Your task to perform on an android device: Look up the top rated 18v miter saw on Home Depot. Image 0: 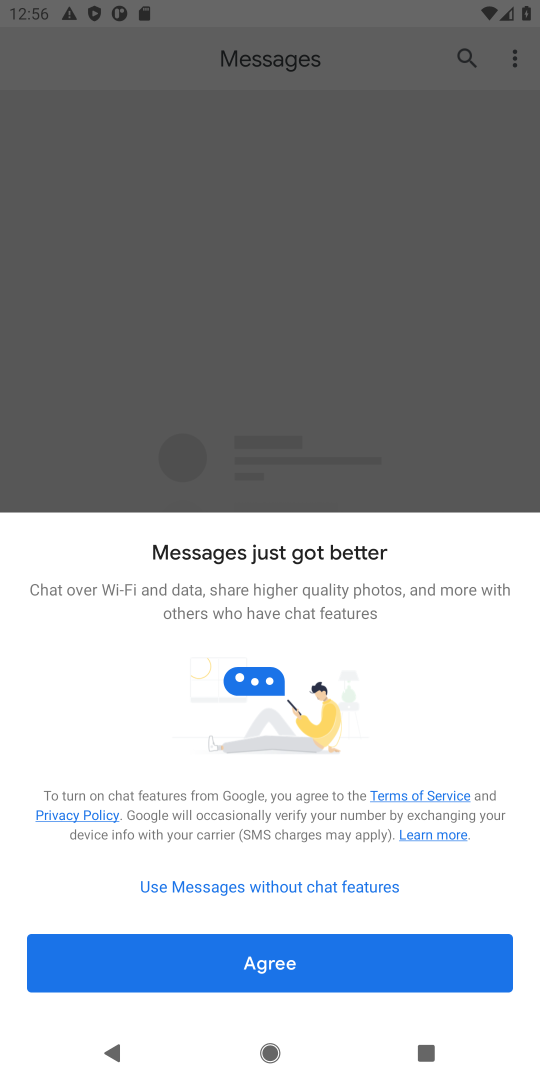
Step 0: press home button
Your task to perform on an android device: Look up the top rated 18v miter saw on Home Depot. Image 1: 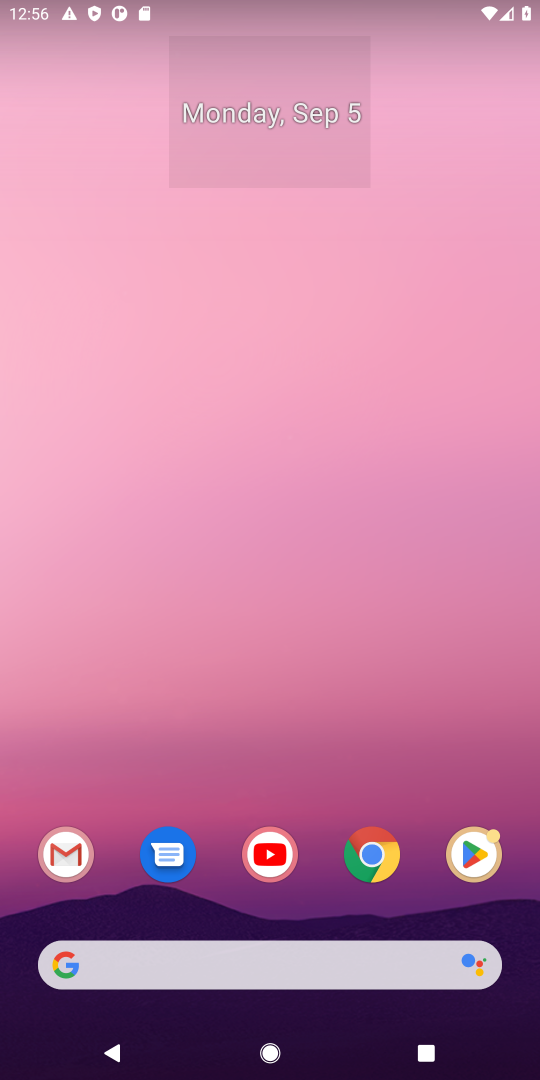
Step 1: click (253, 949)
Your task to perform on an android device: Look up the top rated 18v miter saw on Home Depot. Image 2: 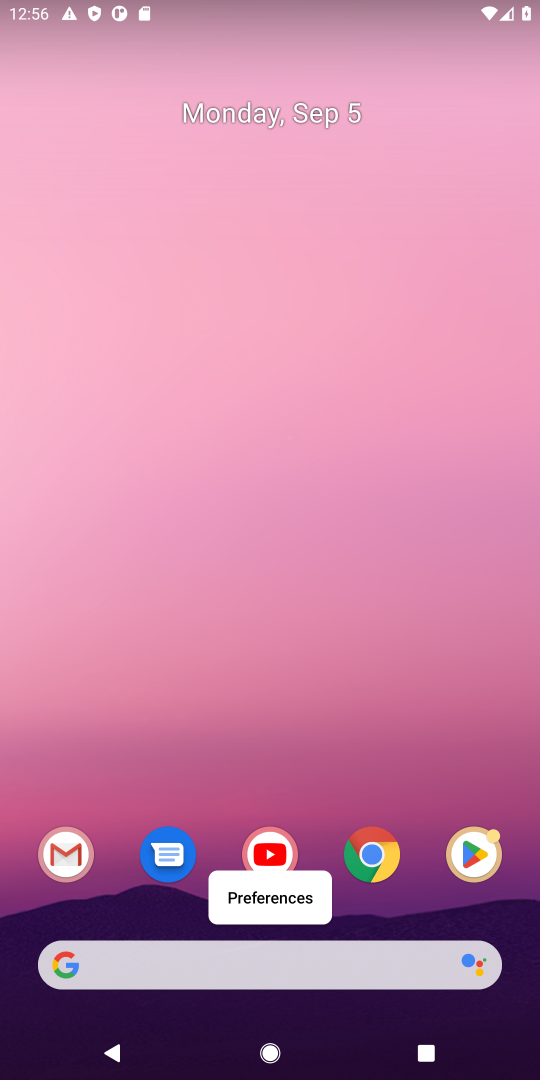
Step 2: click (181, 960)
Your task to perform on an android device: Look up the top rated 18v miter saw on Home Depot. Image 3: 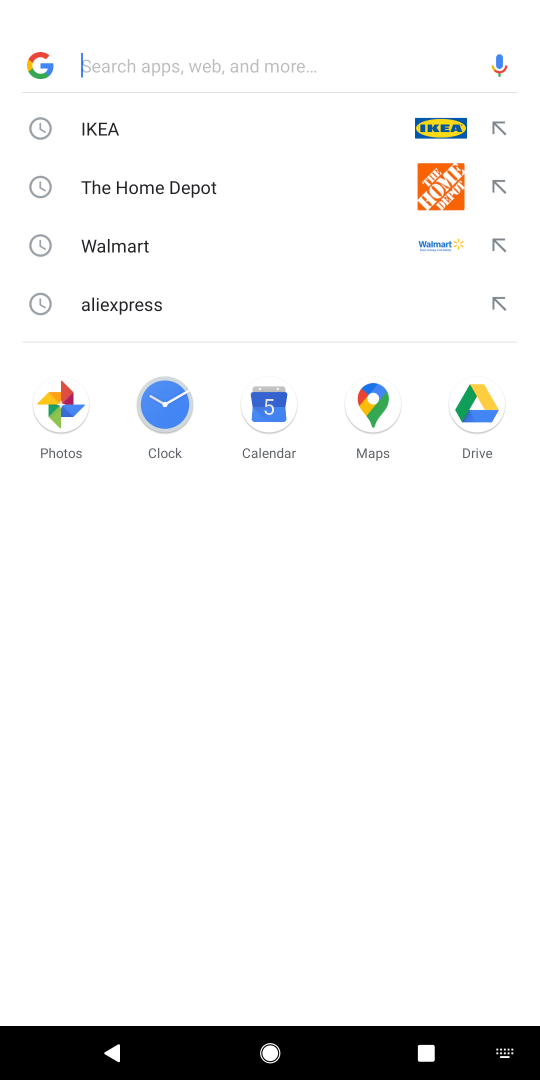
Step 3: press enter
Your task to perform on an android device: Look up the top rated 18v miter saw on Home Depot. Image 4: 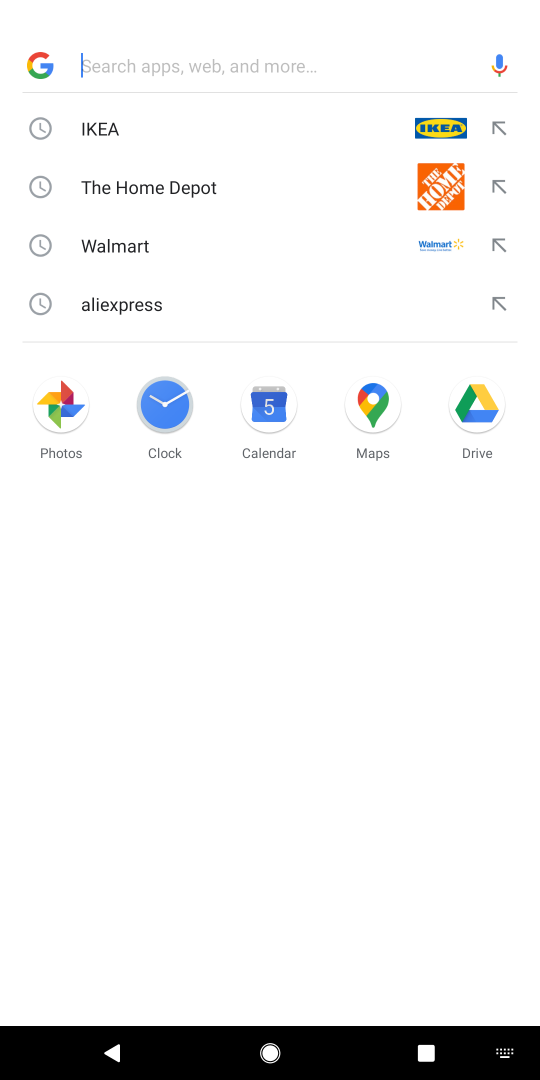
Step 4: type "home depot"
Your task to perform on an android device: Look up the top rated 18v miter saw on Home Depot. Image 5: 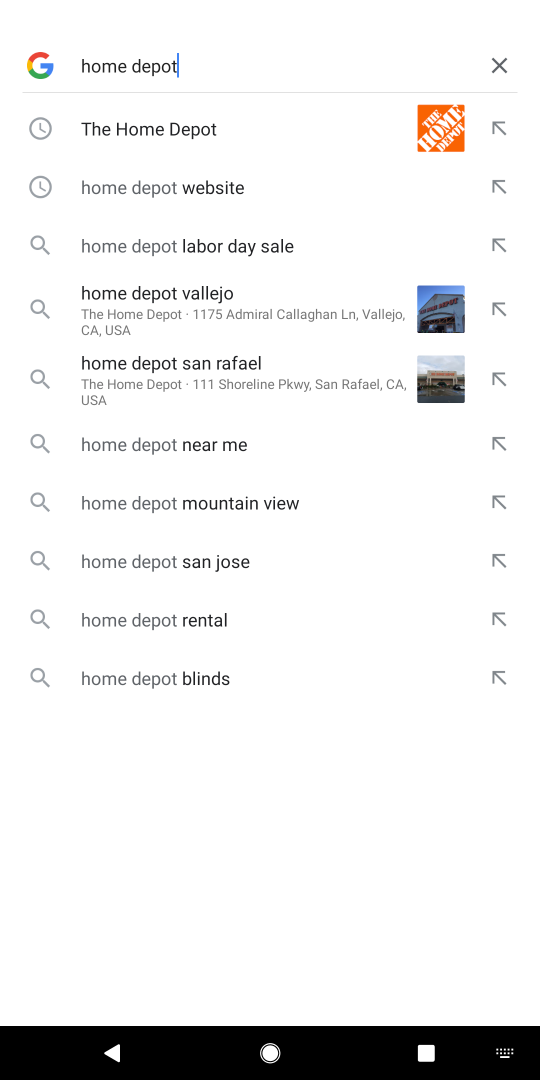
Step 5: click (182, 125)
Your task to perform on an android device: Look up the top rated 18v miter saw on Home Depot. Image 6: 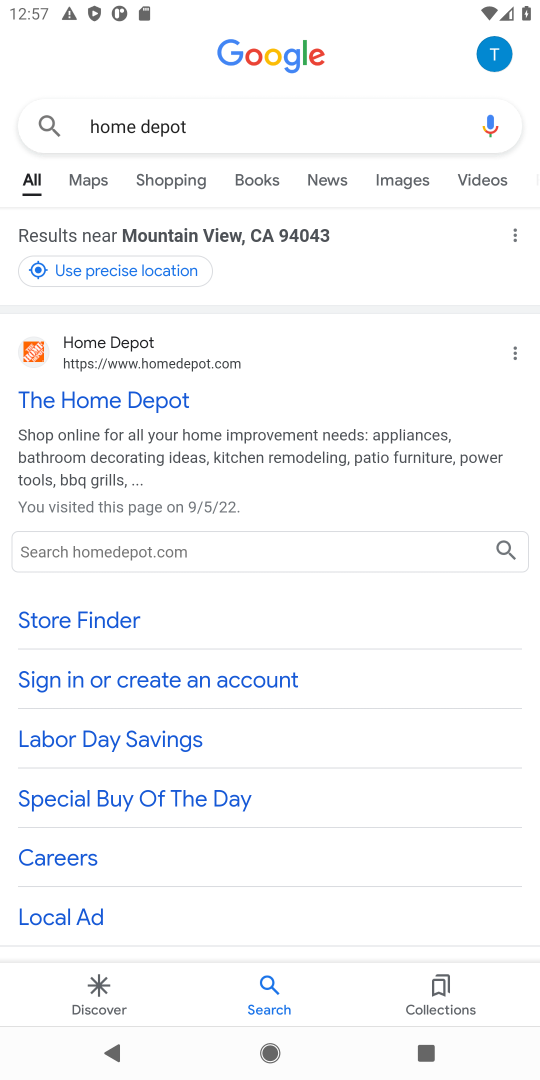
Step 6: click (133, 400)
Your task to perform on an android device: Look up the top rated 18v miter saw on Home Depot. Image 7: 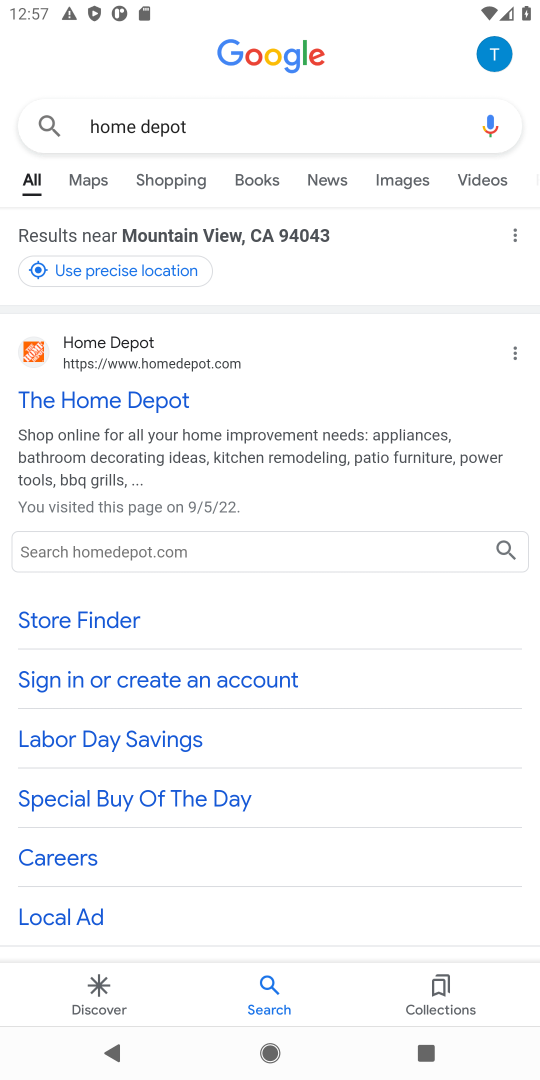
Step 7: click (150, 401)
Your task to perform on an android device: Look up the top rated 18v miter saw on Home Depot. Image 8: 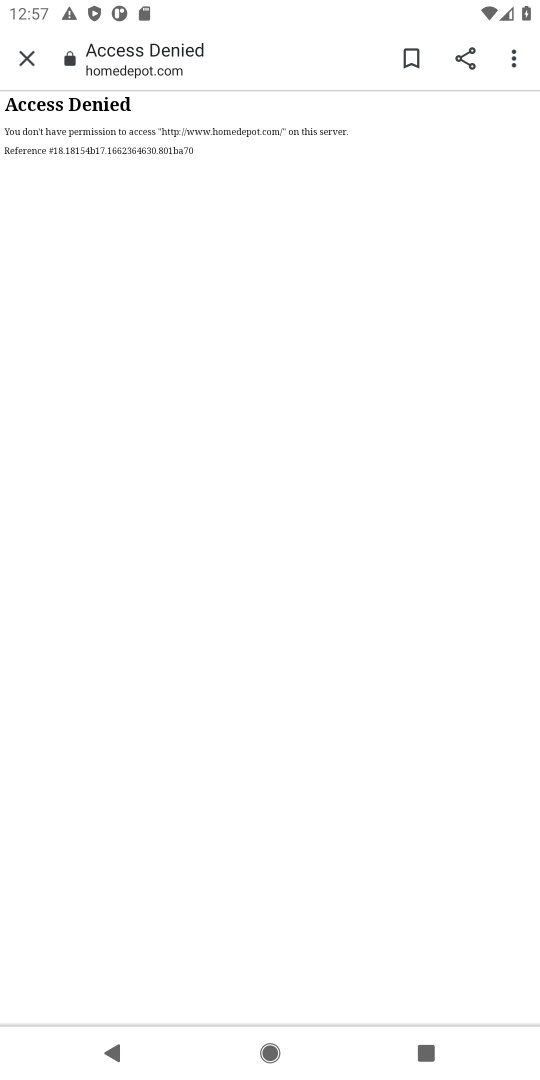
Step 8: task complete